Your task to perform on an android device: check google app version Image 0: 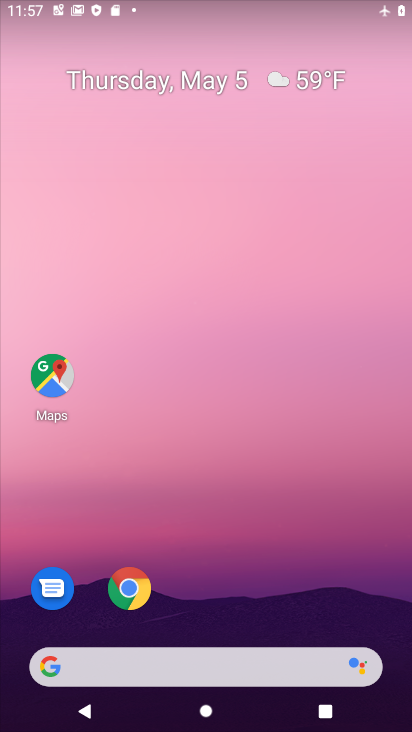
Step 0: drag from (170, 682) to (314, 133)
Your task to perform on an android device: check google app version Image 1: 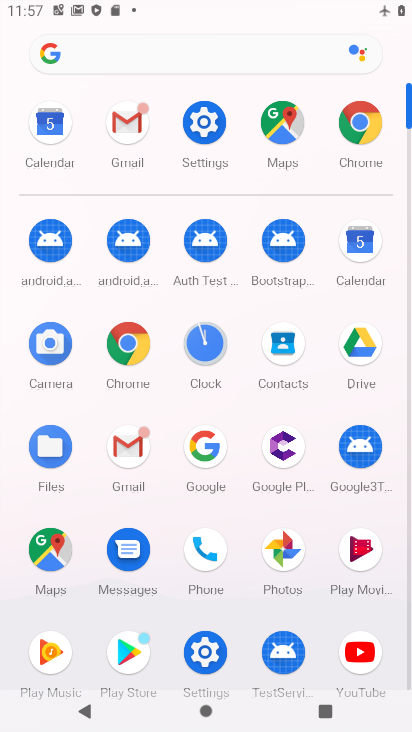
Step 1: click (203, 443)
Your task to perform on an android device: check google app version Image 2: 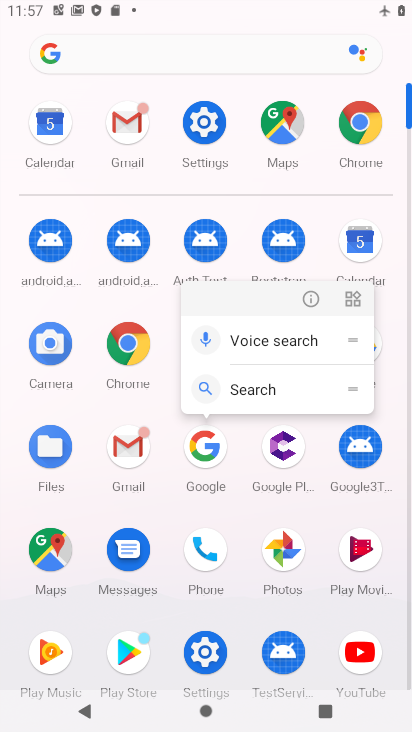
Step 2: click (313, 303)
Your task to perform on an android device: check google app version Image 3: 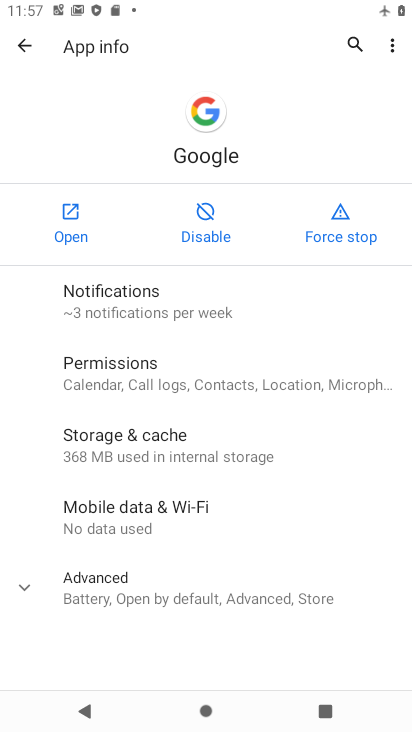
Step 3: drag from (136, 641) to (320, 217)
Your task to perform on an android device: check google app version Image 4: 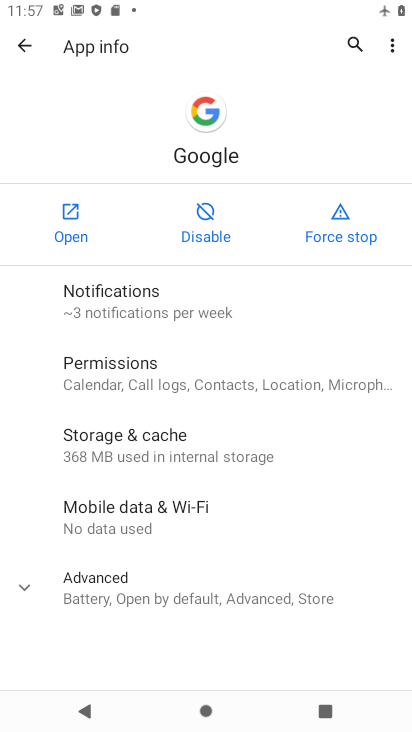
Step 4: click (104, 584)
Your task to perform on an android device: check google app version Image 5: 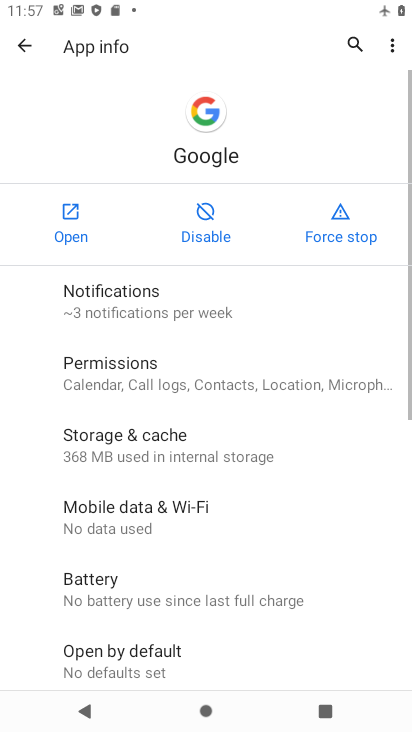
Step 5: task complete